Your task to perform on an android device: Open Reddit.com Image 0: 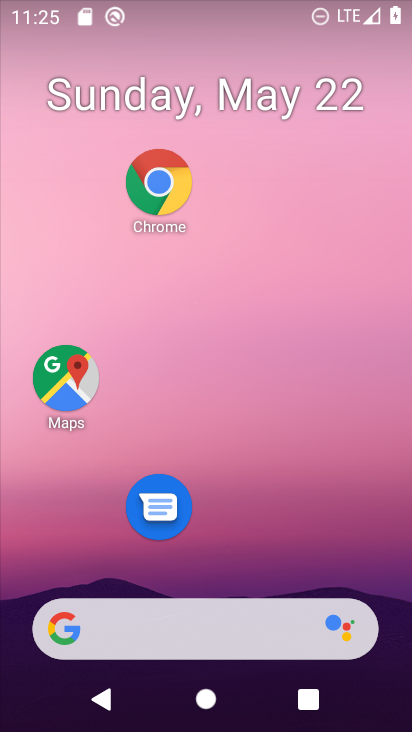
Step 0: click (148, 645)
Your task to perform on an android device: Open Reddit.com Image 1: 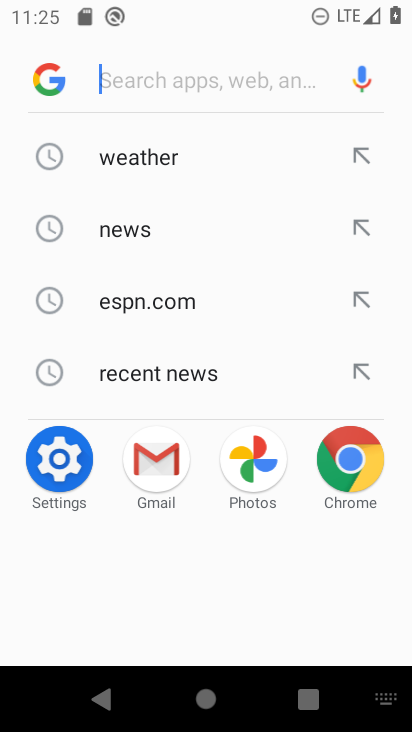
Step 1: click (191, 77)
Your task to perform on an android device: Open Reddit.com Image 2: 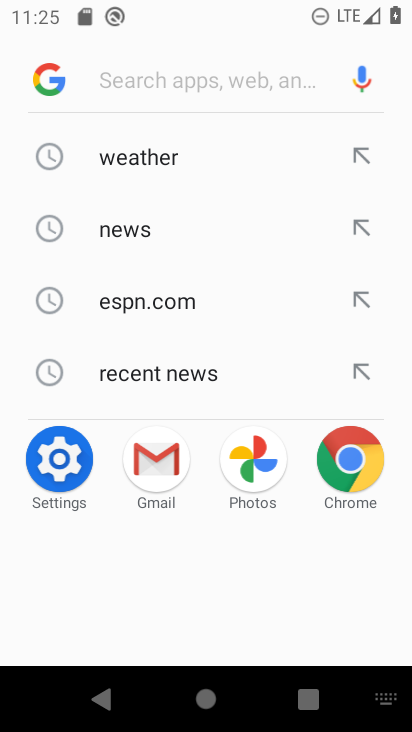
Step 2: type "reddit.com"
Your task to perform on an android device: Open Reddit.com Image 3: 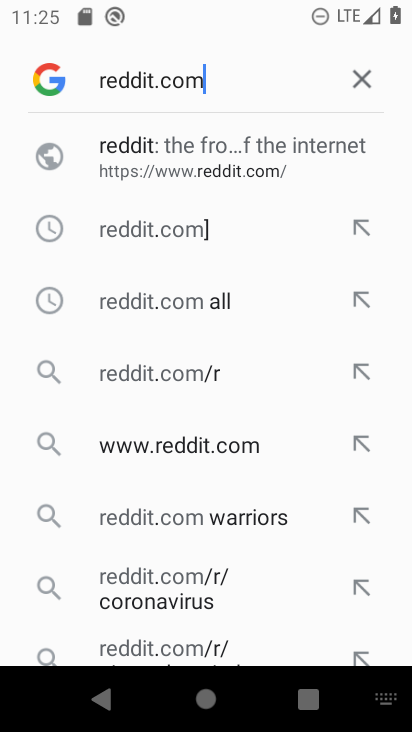
Step 3: click (247, 163)
Your task to perform on an android device: Open Reddit.com Image 4: 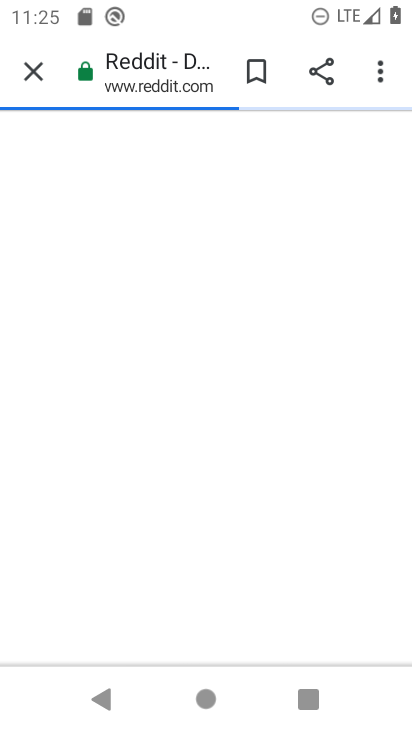
Step 4: task complete